Your task to perform on an android device: toggle location history Image 0: 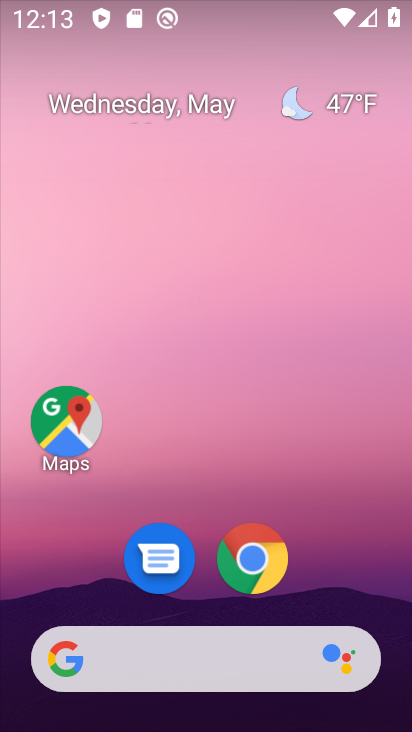
Step 0: drag from (209, 718) to (210, 190)
Your task to perform on an android device: toggle location history Image 1: 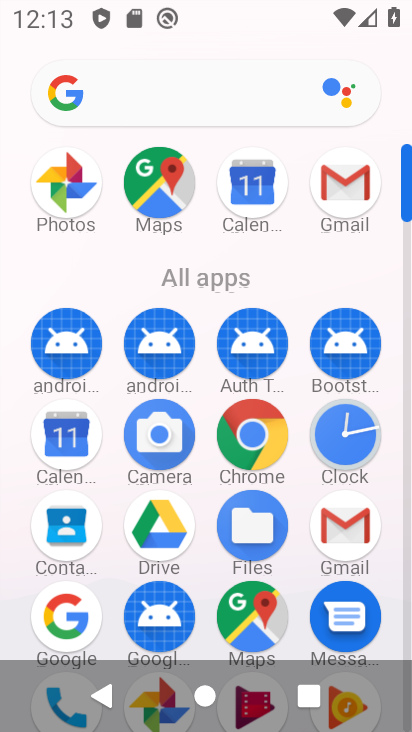
Step 1: drag from (197, 585) to (199, 249)
Your task to perform on an android device: toggle location history Image 2: 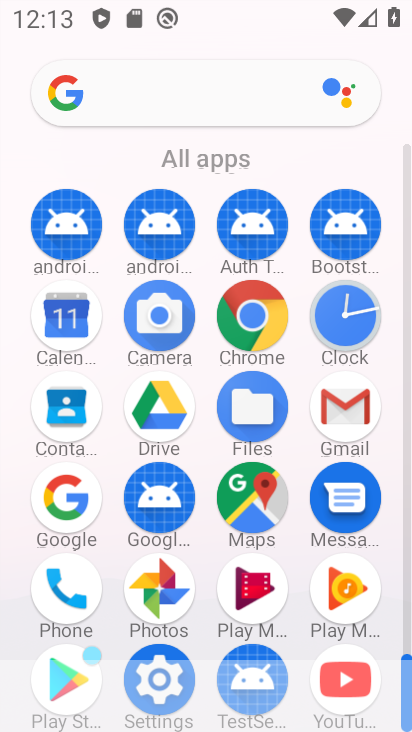
Step 2: click (164, 654)
Your task to perform on an android device: toggle location history Image 3: 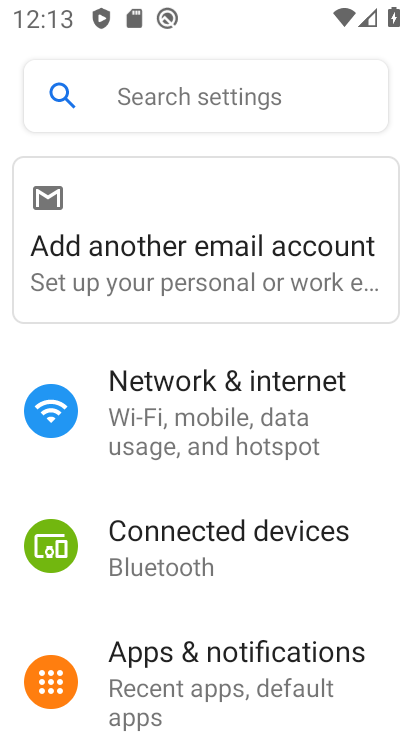
Step 3: drag from (221, 637) to (225, 329)
Your task to perform on an android device: toggle location history Image 4: 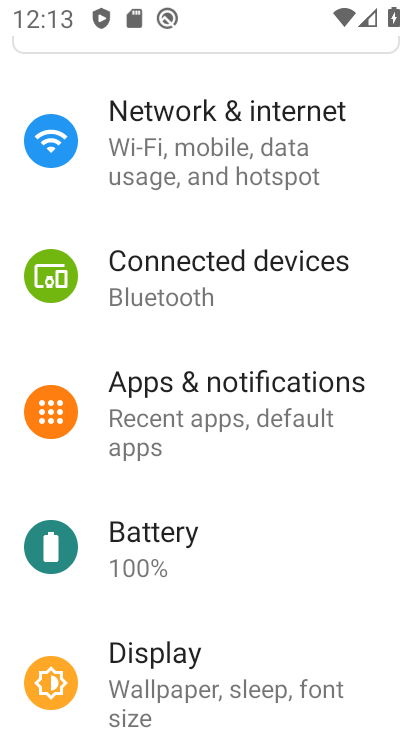
Step 4: drag from (181, 696) to (178, 315)
Your task to perform on an android device: toggle location history Image 5: 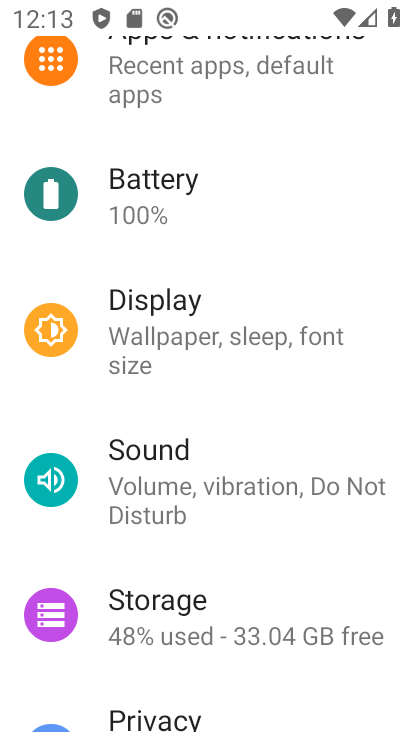
Step 5: drag from (158, 669) to (152, 257)
Your task to perform on an android device: toggle location history Image 6: 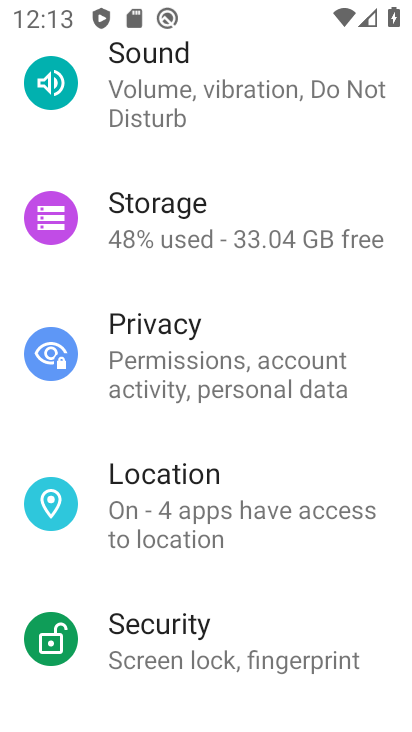
Step 6: click (164, 487)
Your task to perform on an android device: toggle location history Image 7: 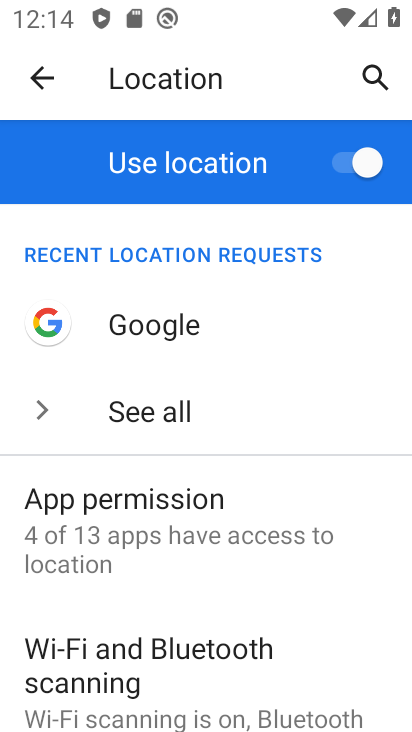
Step 7: drag from (149, 610) to (162, 429)
Your task to perform on an android device: toggle location history Image 8: 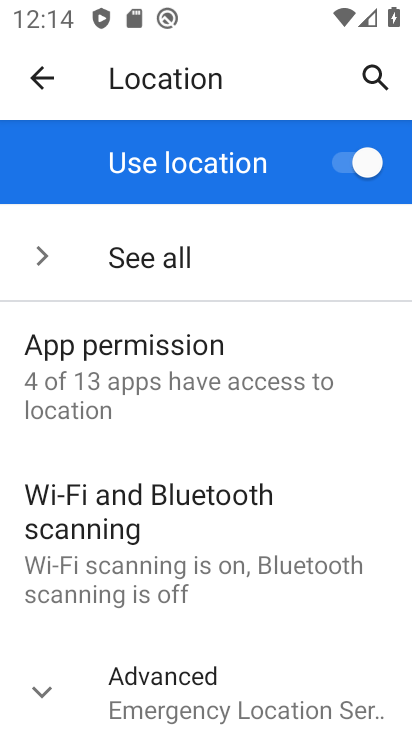
Step 8: drag from (187, 661) to (190, 328)
Your task to perform on an android device: toggle location history Image 9: 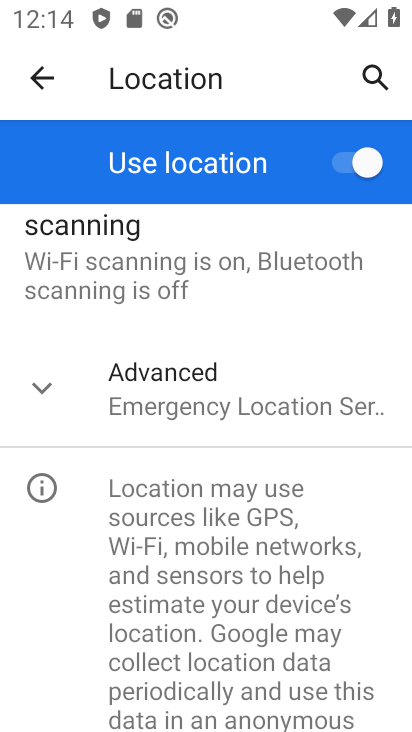
Step 9: click (188, 402)
Your task to perform on an android device: toggle location history Image 10: 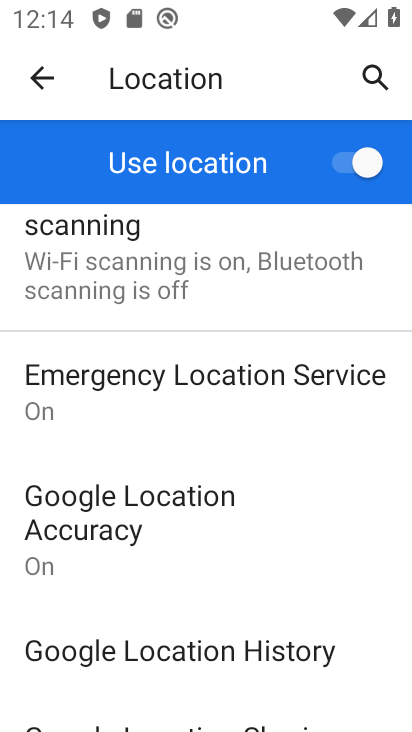
Step 10: drag from (142, 694) to (164, 387)
Your task to perform on an android device: toggle location history Image 11: 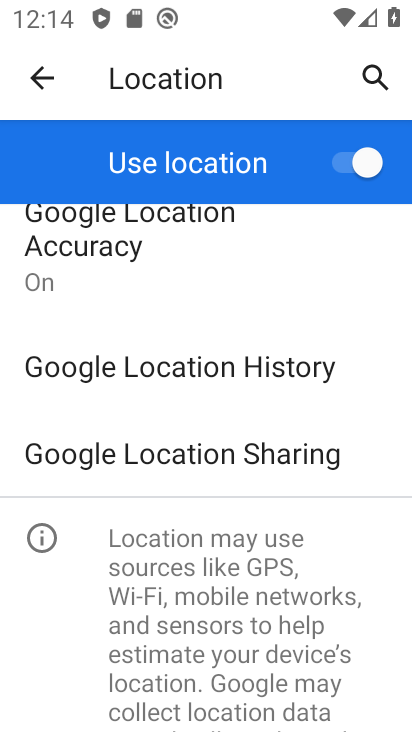
Step 11: click (185, 361)
Your task to perform on an android device: toggle location history Image 12: 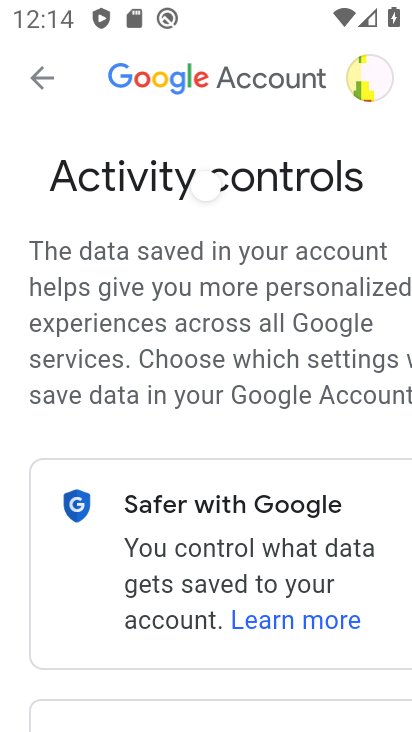
Step 12: drag from (245, 695) to (245, 362)
Your task to perform on an android device: toggle location history Image 13: 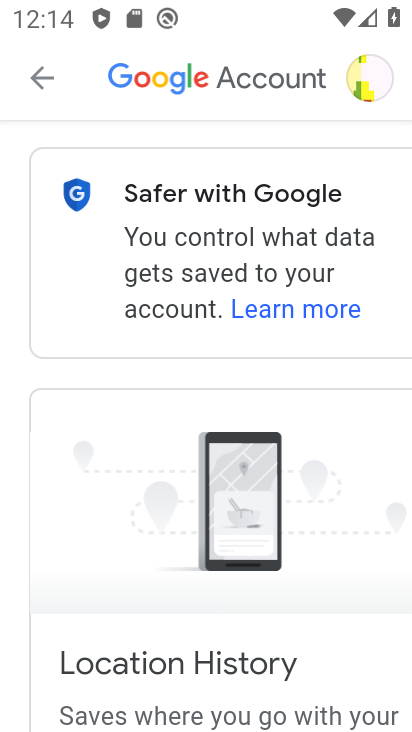
Step 13: drag from (231, 701) to (235, 181)
Your task to perform on an android device: toggle location history Image 14: 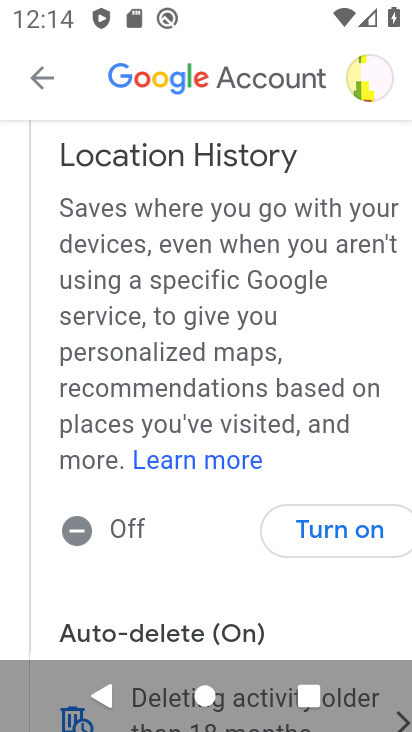
Step 14: click (325, 530)
Your task to perform on an android device: toggle location history Image 15: 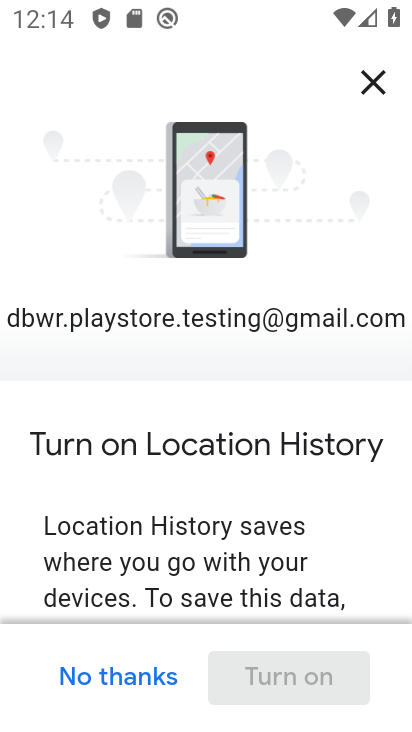
Step 15: drag from (299, 591) to (299, 187)
Your task to perform on an android device: toggle location history Image 16: 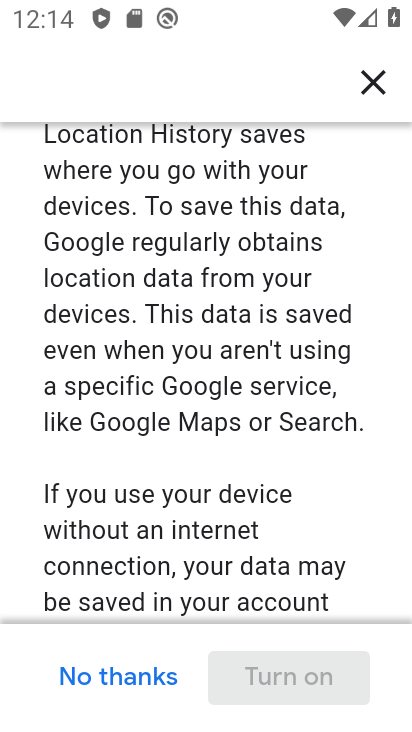
Step 16: drag from (233, 470) to (230, 197)
Your task to perform on an android device: toggle location history Image 17: 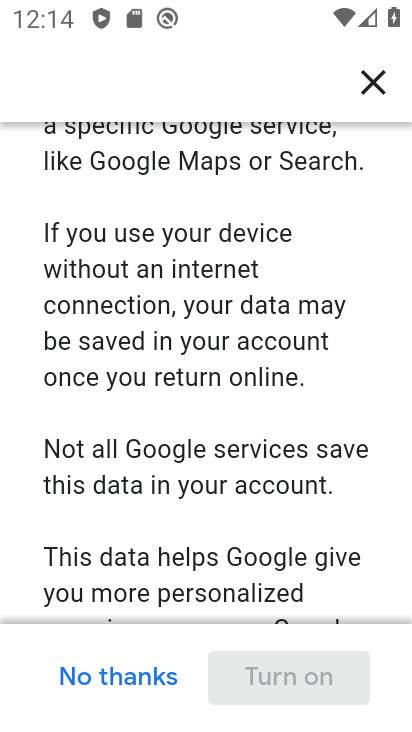
Step 17: drag from (263, 571) to (264, 191)
Your task to perform on an android device: toggle location history Image 18: 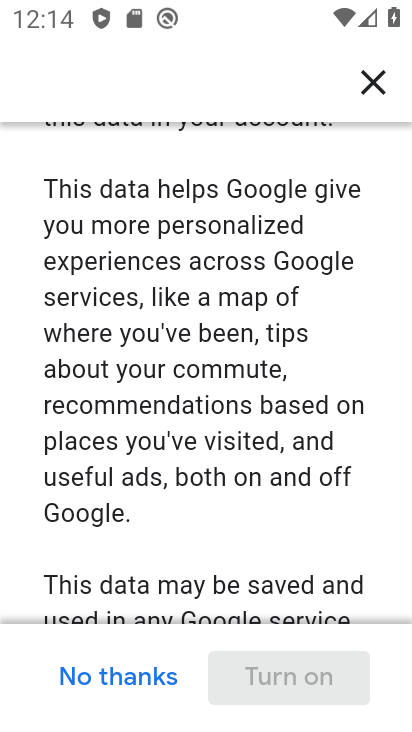
Step 18: drag from (269, 561) to (269, 166)
Your task to perform on an android device: toggle location history Image 19: 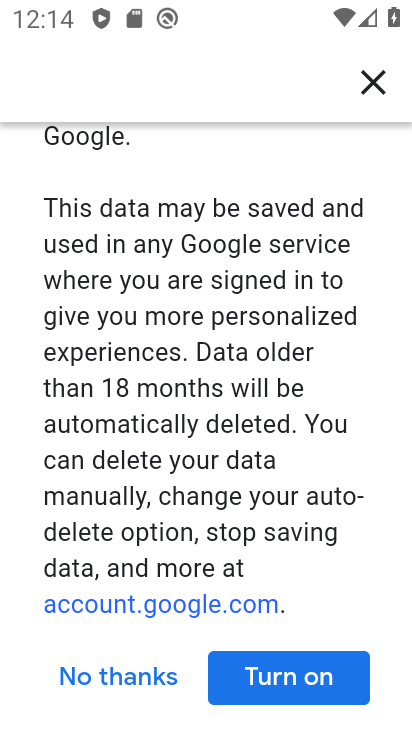
Step 19: click (296, 673)
Your task to perform on an android device: toggle location history Image 20: 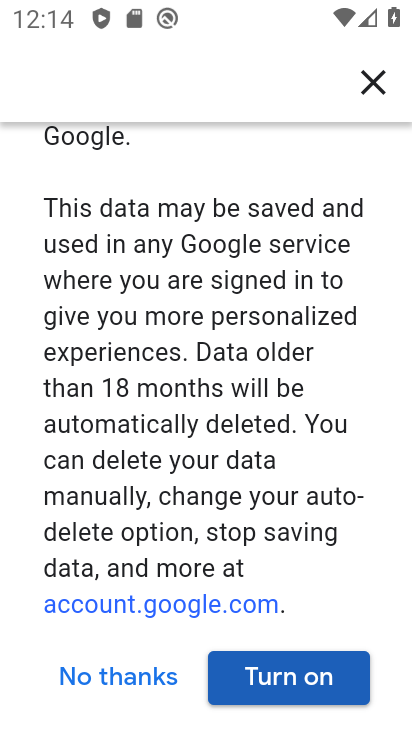
Step 20: click (289, 683)
Your task to perform on an android device: toggle location history Image 21: 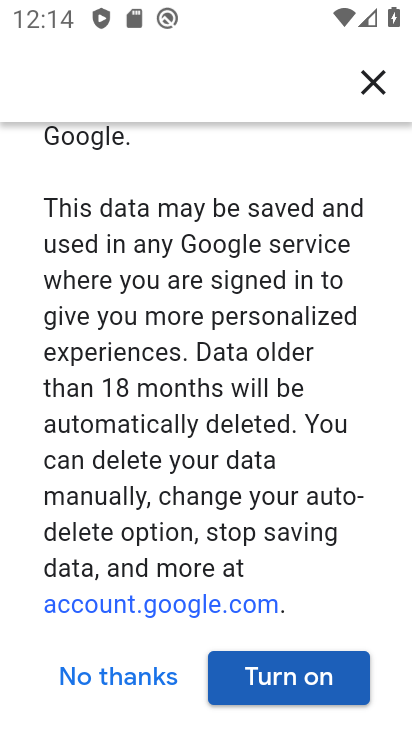
Step 21: click (285, 678)
Your task to perform on an android device: toggle location history Image 22: 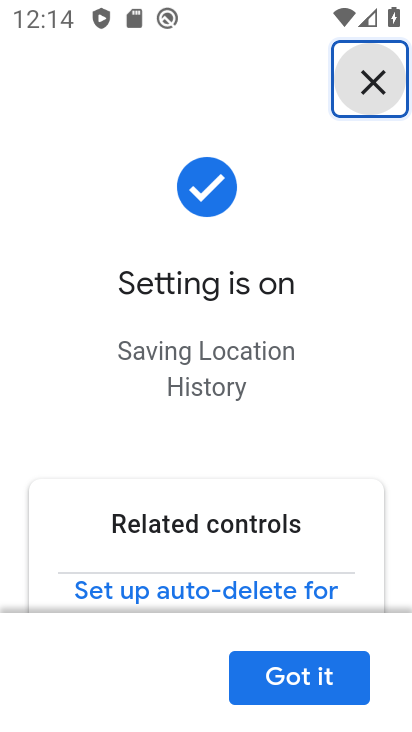
Step 22: task complete